Your task to perform on an android device: turn off smart reply in the gmail app Image 0: 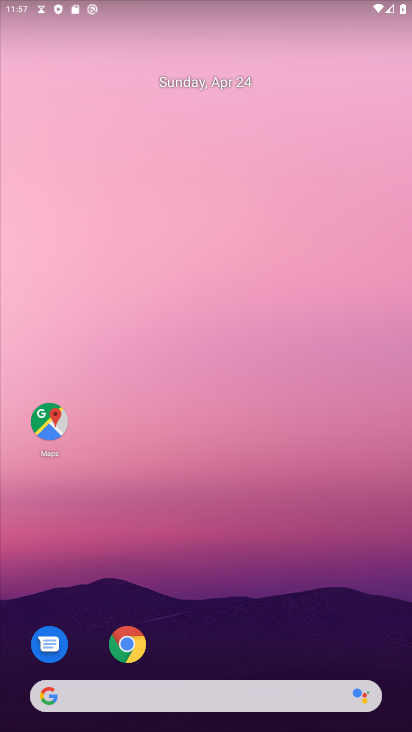
Step 0: drag from (366, 629) to (377, 52)
Your task to perform on an android device: turn off smart reply in the gmail app Image 1: 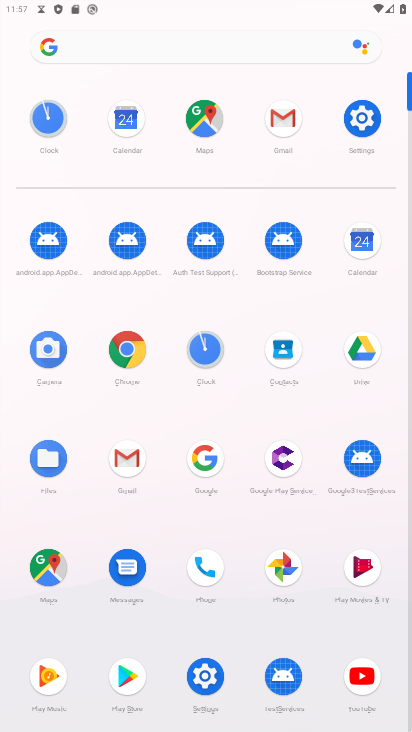
Step 1: click (275, 122)
Your task to perform on an android device: turn off smart reply in the gmail app Image 2: 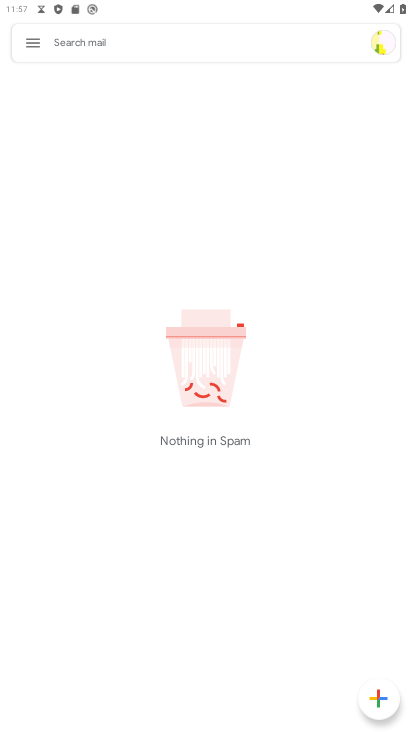
Step 2: click (30, 45)
Your task to perform on an android device: turn off smart reply in the gmail app Image 3: 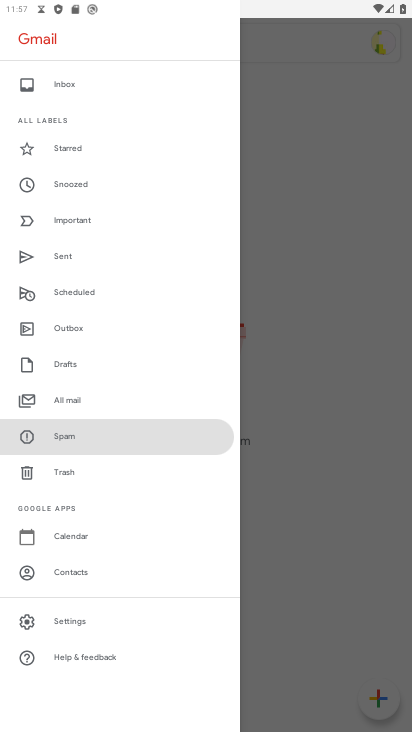
Step 3: click (65, 621)
Your task to perform on an android device: turn off smart reply in the gmail app Image 4: 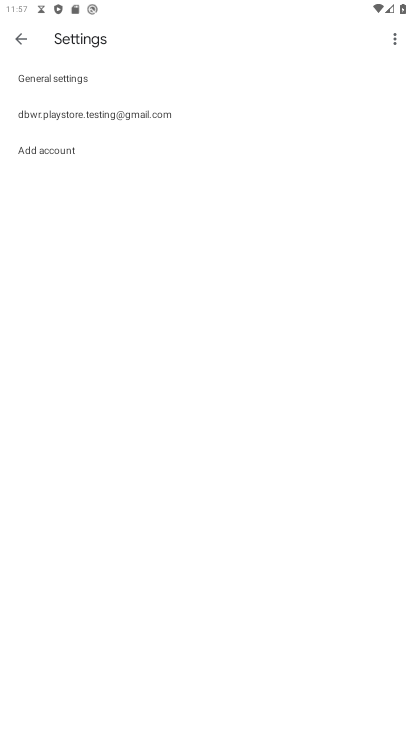
Step 4: click (53, 116)
Your task to perform on an android device: turn off smart reply in the gmail app Image 5: 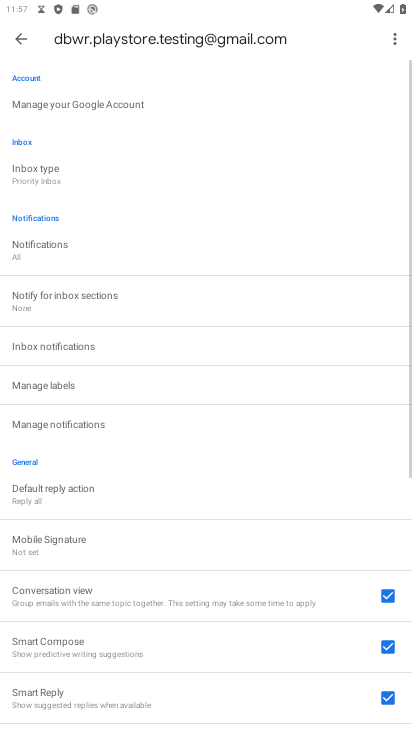
Step 5: drag from (181, 633) to (184, 465)
Your task to perform on an android device: turn off smart reply in the gmail app Image 6: 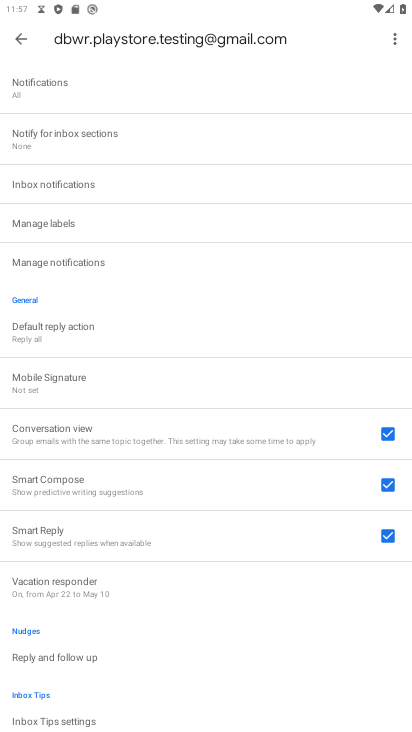
Step 6: click (386, 540)
Your task to perform on an android device: turn off smart reply in the gmail app Image 7: 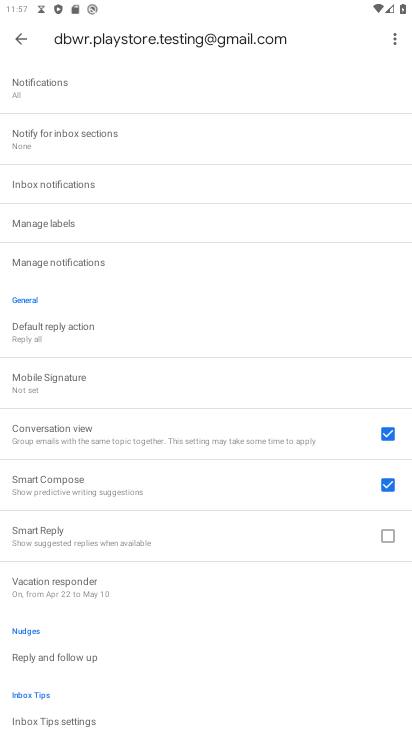
Step 7: task complete